Your task to perform on an android device: check data usage Image 0: 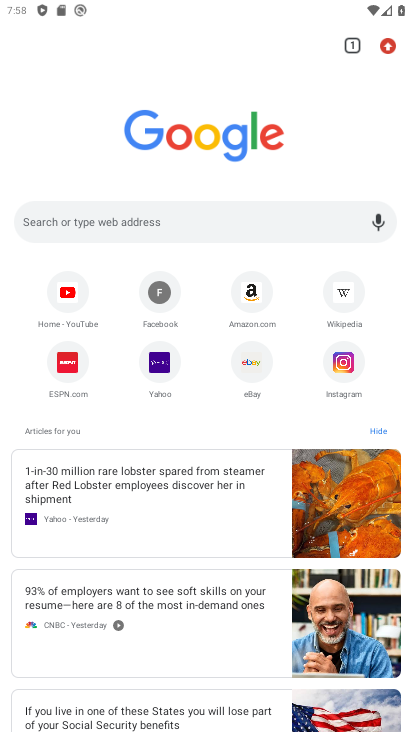
Step 0: press back button
Your task to perform on an android device: check data usage Image 1: 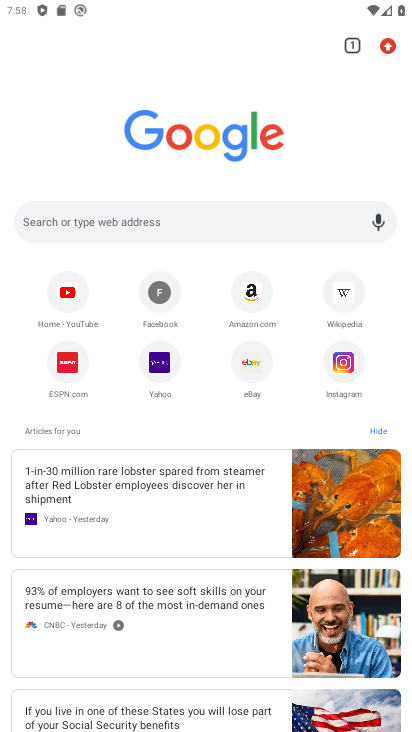
Step 1: press back button
Your task to perform on an android device: check data usage Image 2: 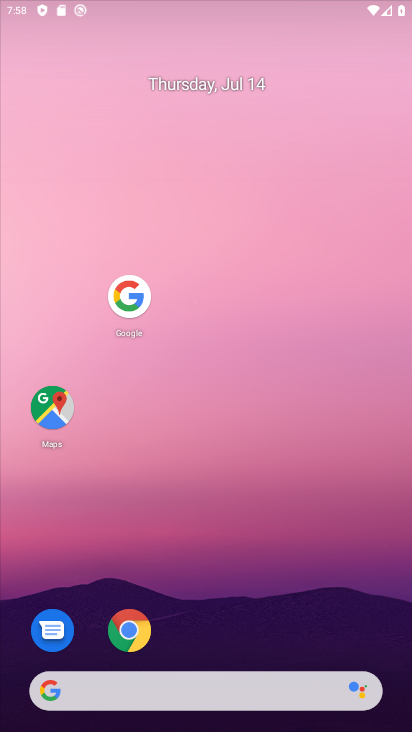
Step 2: press back button
Your task to perform on an android device: check data usage Image 3: 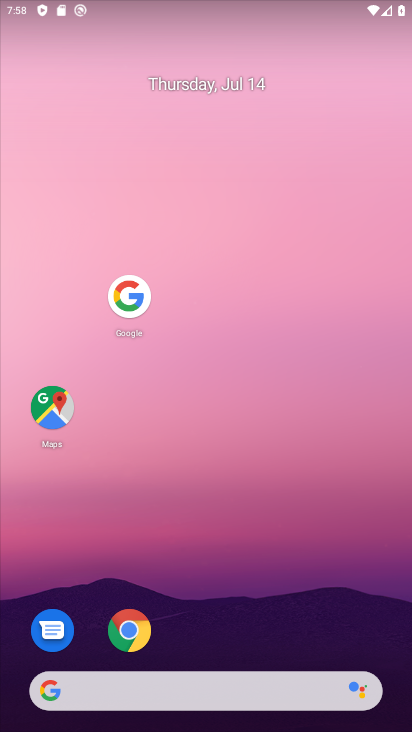
Step 3: drag from (245, 636) to (264, 184)
Your task to perform on an android device: check data usage Image 4: 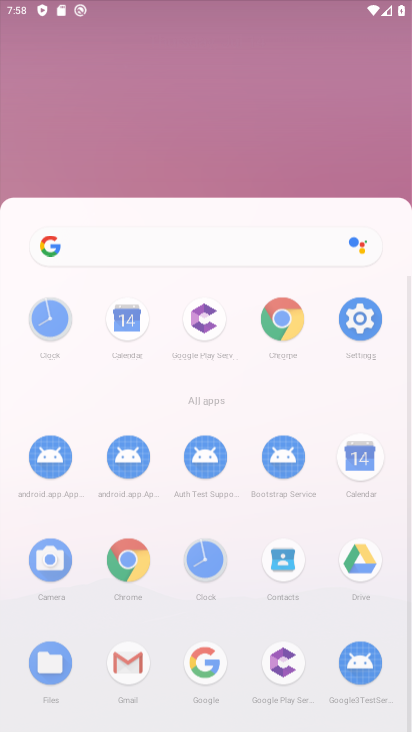
Step 4: drag from (222, 497) to (177, 50)
Your task to perform on an android device: check data usage Image 5: 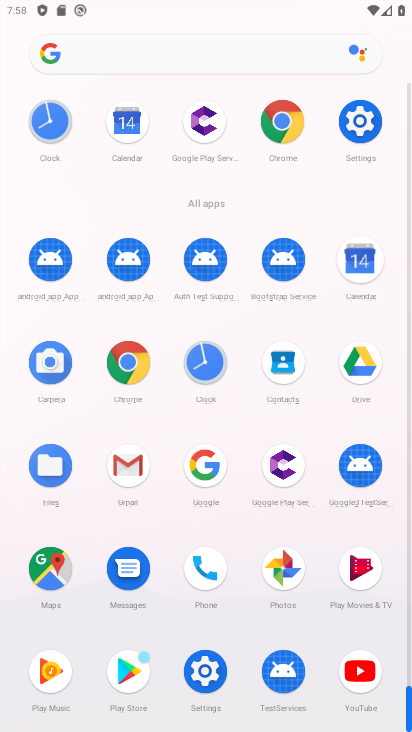
Step 5: click (371, 128)
Your task to perform on an android device: check data usage Image 6: 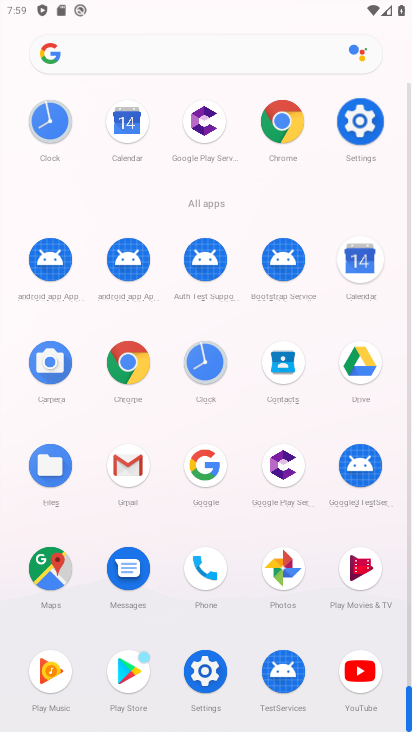
Step 6: click (367, 125)
Your task to perform on an android device: check data usage Image 7: 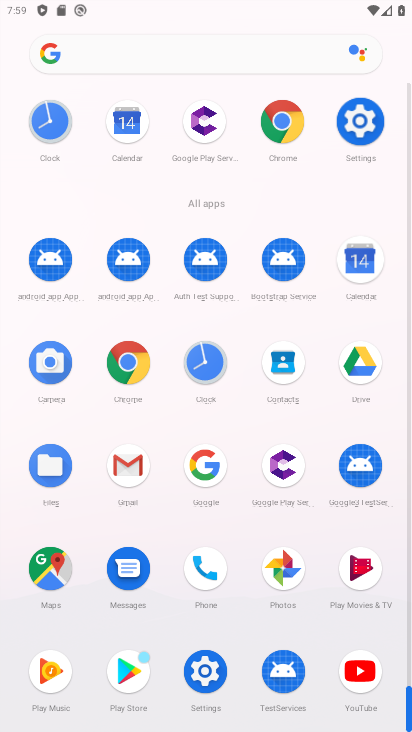
Step 7: click (368, 123)
Your task to perform on an android device: check data usage Image 8: 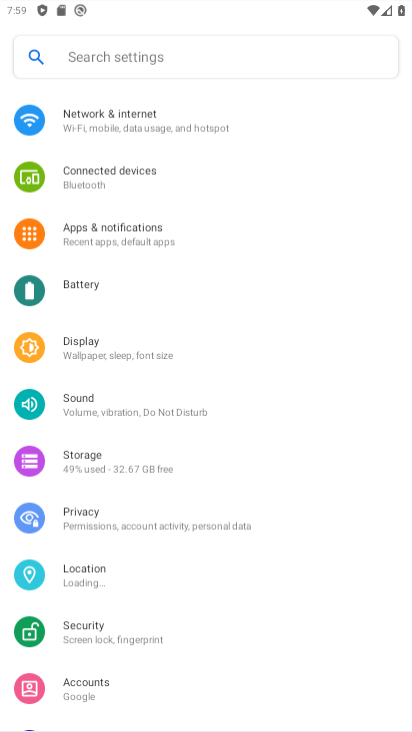
Step 8: click (368, 120)
Your task to perform on an android device: check data usage Image 9: 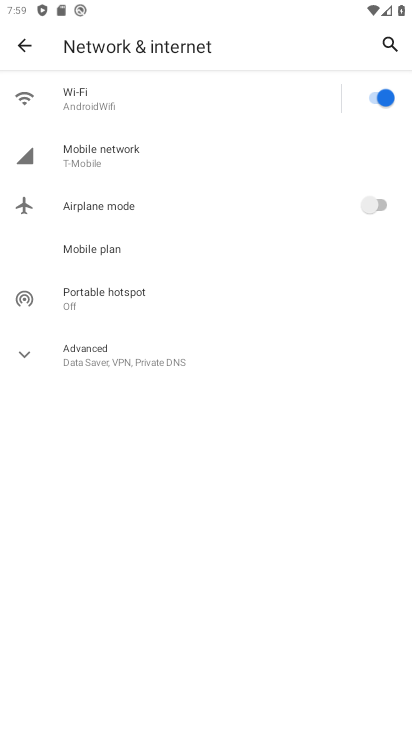
Step 9: task complete